Your task to perform on an android device: set the timer Image 0: 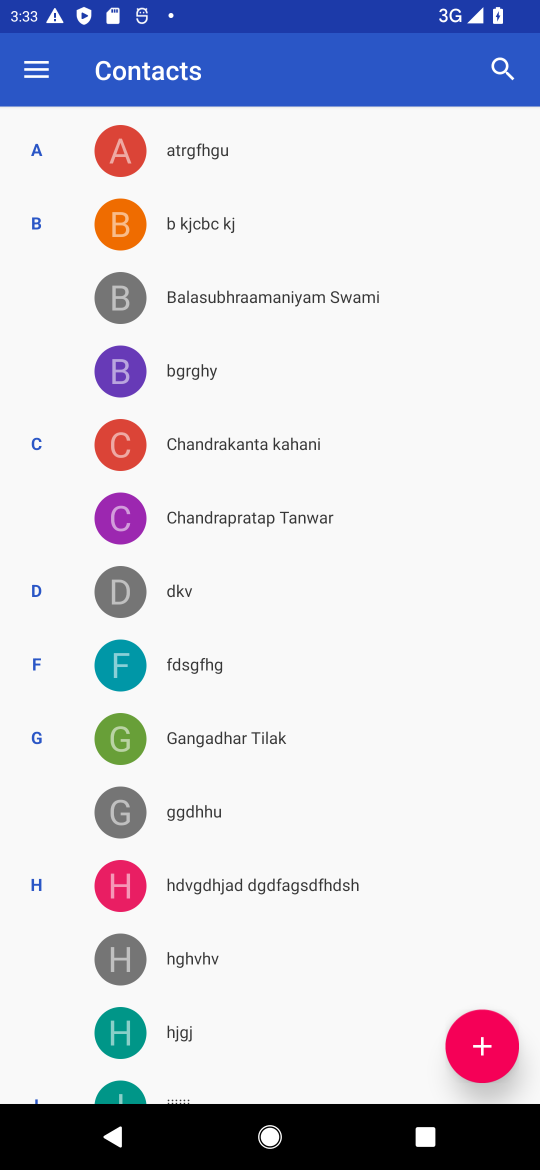
Step 0: task complete